Your task to perform on an android device: delete browsing data in the chrome app Image 0: 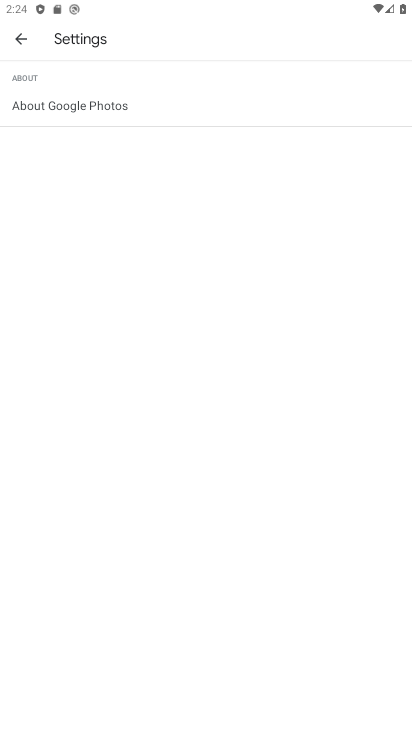
Step 0: press home button
Your task to perform on an android device: delete browsing data in the chrome app Image 1: 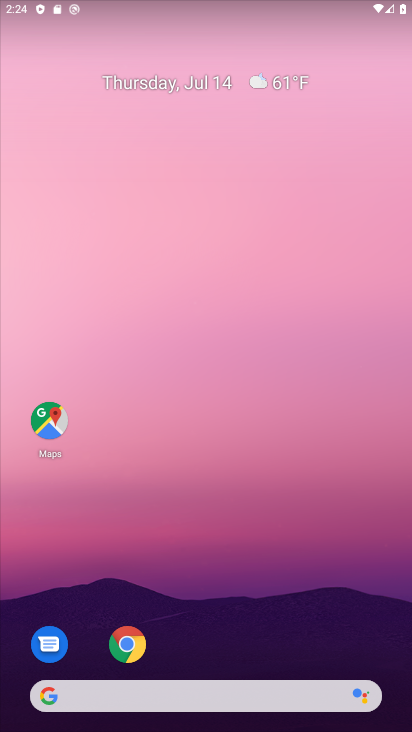
Step 1: click (150, 641)
Your task to perform on an android device: delete browsing data in the chrome app Image 2: 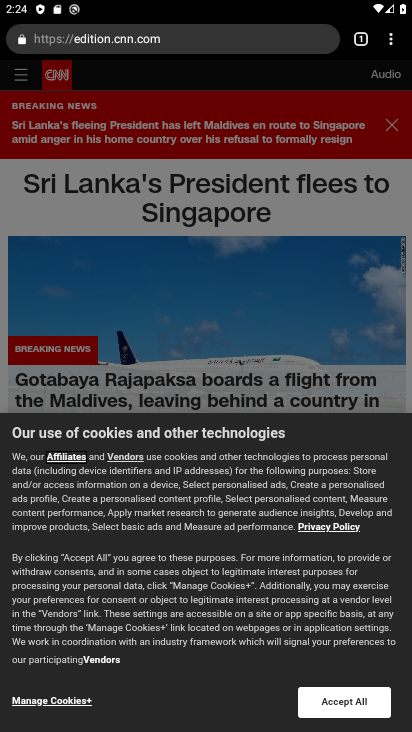
Step 2: click (398, 47)
Your task to perform on an android device: delete browsing data in the chrome app Image 3: 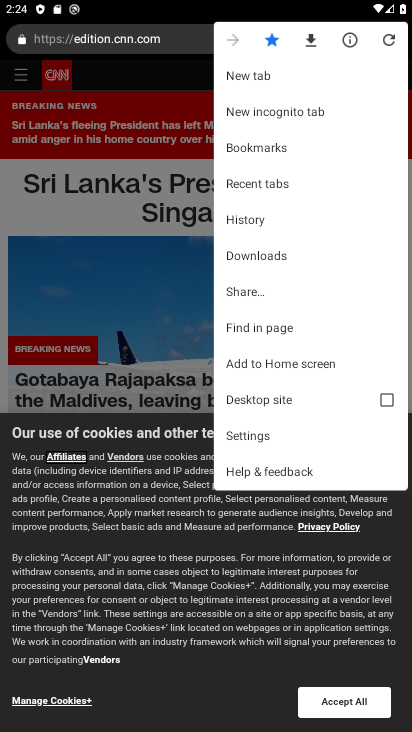
Step 3: click (285, 219)
Your task to perform on an android device: delete browsing data in the chrome app Image 4: 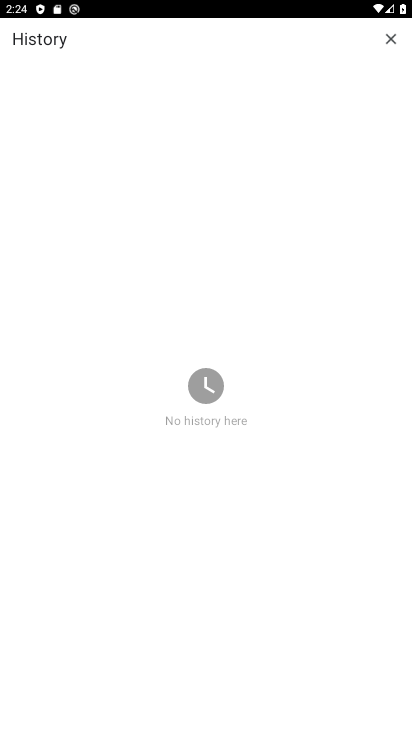
Step 4: task complete